Your task to perform on an android device: Go to wifi settings Image 0: 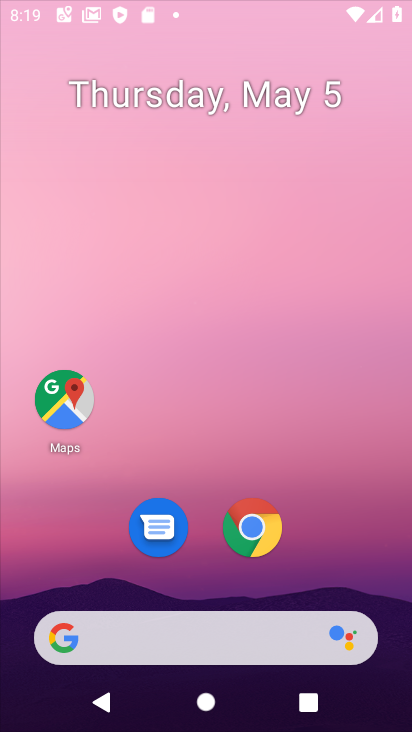
Step 0: click (228, 0)
Your task to perform on an android device: Go to wifi settings Image 1: 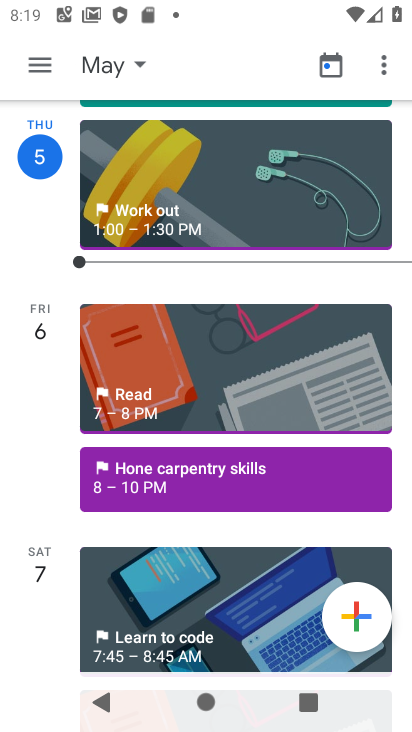
Step 1: press home button
Your task to perform on an android device: Go to wifi settings Image 2: 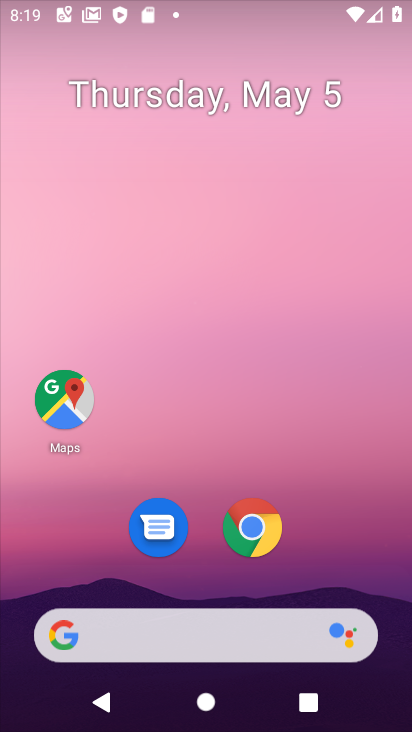
Step 2: drag from (249, 712) to (259, 1)
Your task to perform on an android device: Go to wifi settings Image 3: 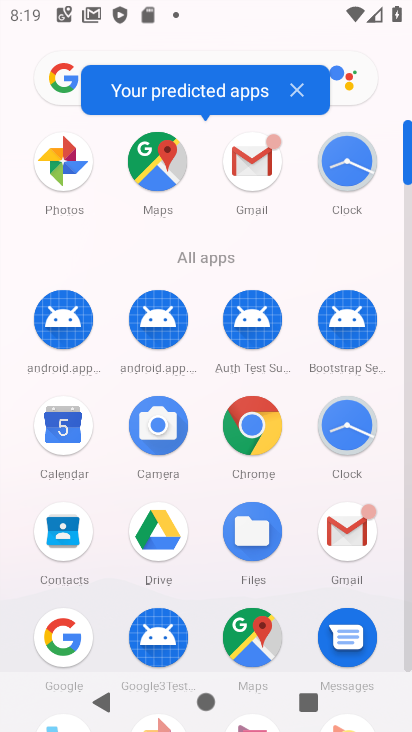
Step 3: drag from (289, 554) to (267, 0)
Your task to perform on an android device: Go to wifi settings Image 4: 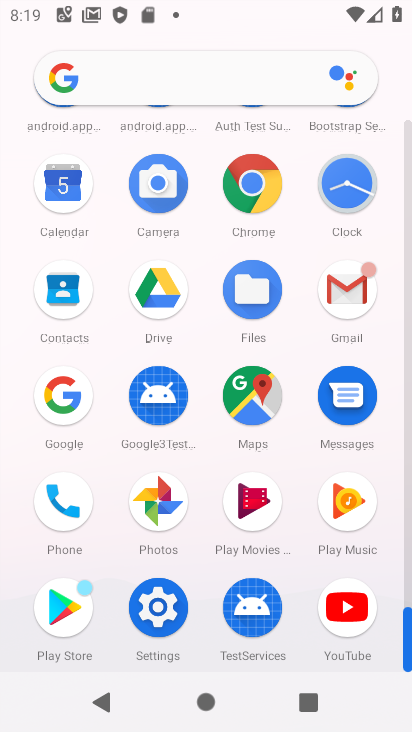
Step 4: click (157, 613)
Your task to perform on an android device: Go to wifi settings Image 5: 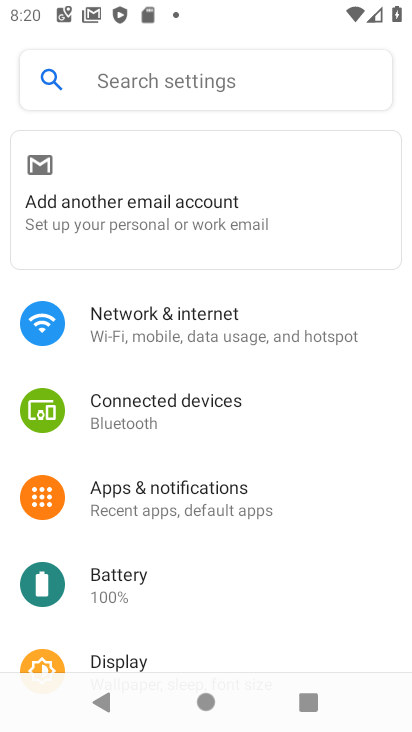
Step 5: click (279, 338)
Your task to perform on an android device: Go to wifi settings Image 6: 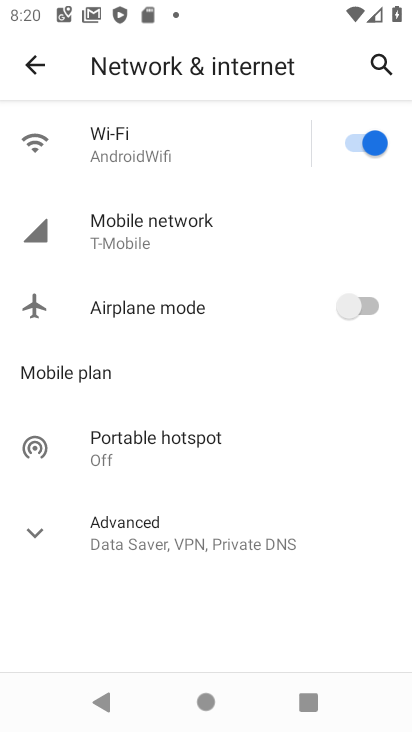
Step 6: click (142, 157)
Your task to perform on an android device: Go to wifi settings Image 7: 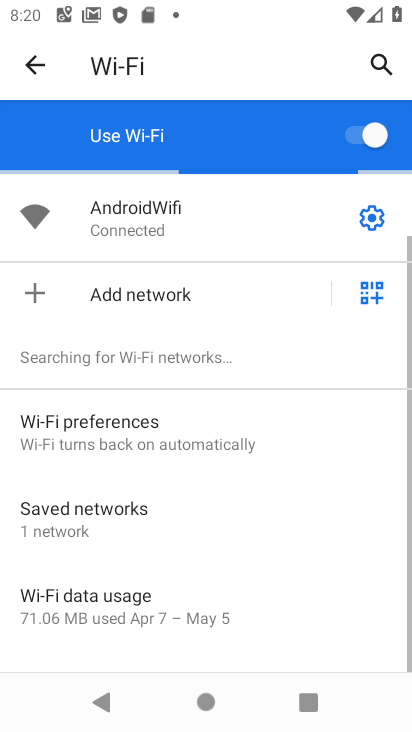
Step 7: click (369, 213)
Your task to perform on an android device: Go to wifi settings Image 8: 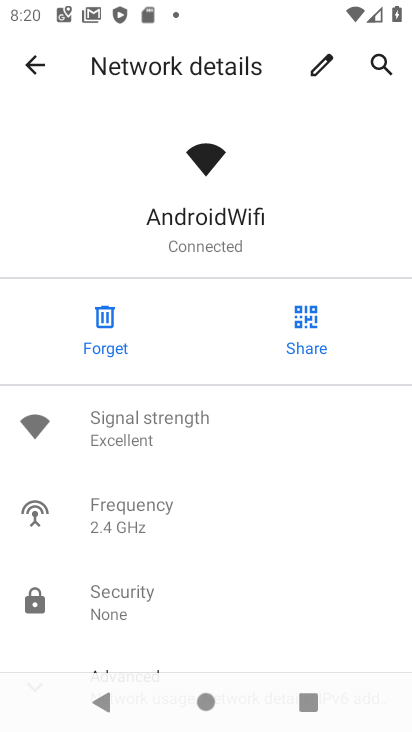
Step 8: task complete